Your task to perform on an android device: Go to Reddit.com Image 0: 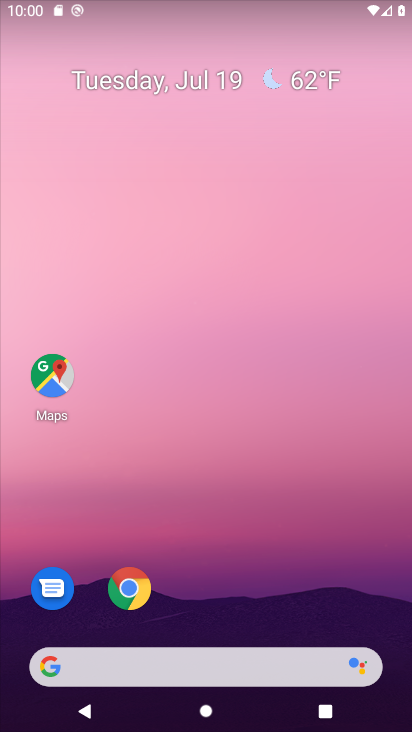
Step 0: click (140, 595)
Your task to perform on an android device: Go to Reddit.com Image 1: 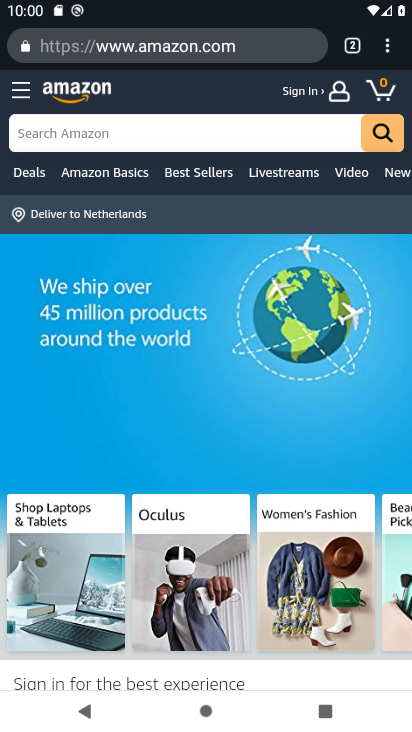
Step 1: click (211, 52)
Your task to perform on an android device: Go to Reddit.com Image 2: 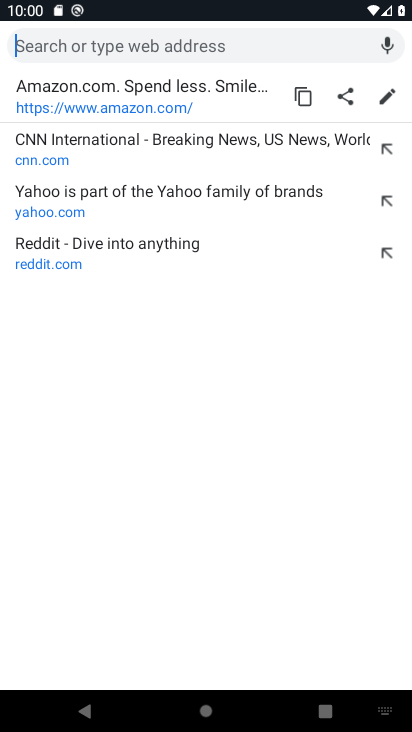
Step 2: click (119, 252)
Your task to perform on an android device: Go to Reddit.com Image 3: 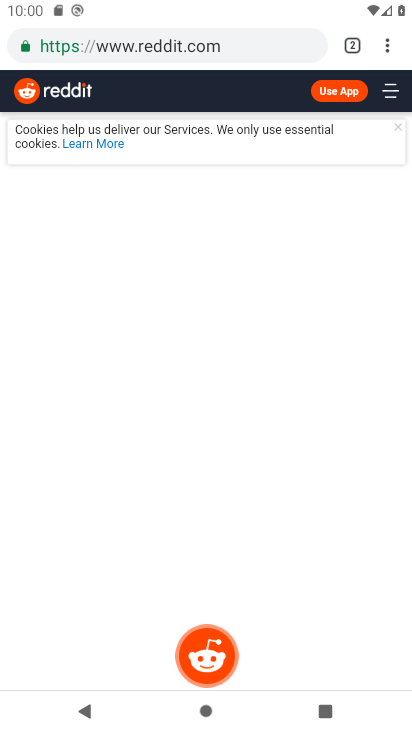
Step 3: task complete